Your task to perform on an android device: When is my next appointment? Image 0: 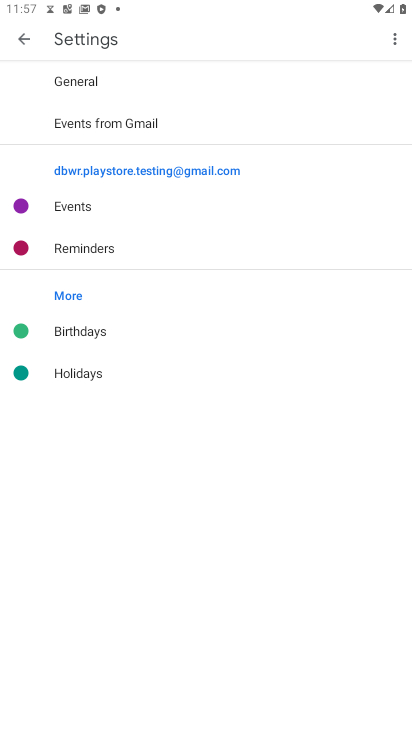
Step 0: press back button
Your task to perform on an android device: When is my next appointment? Image 1: 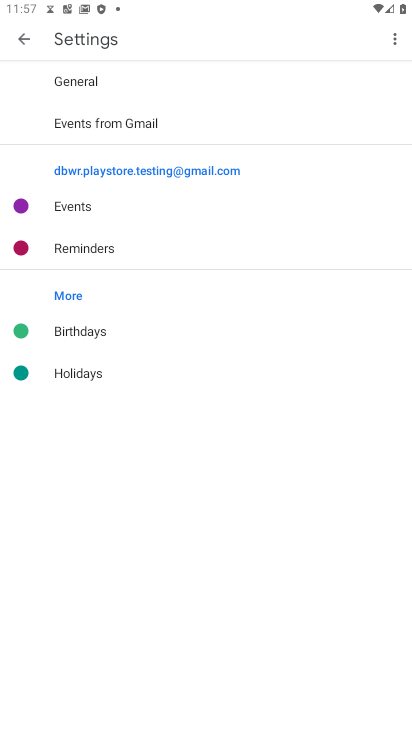
Step 1: press back button
Your task to perform on an android device: When is my next appointment? Image 2: 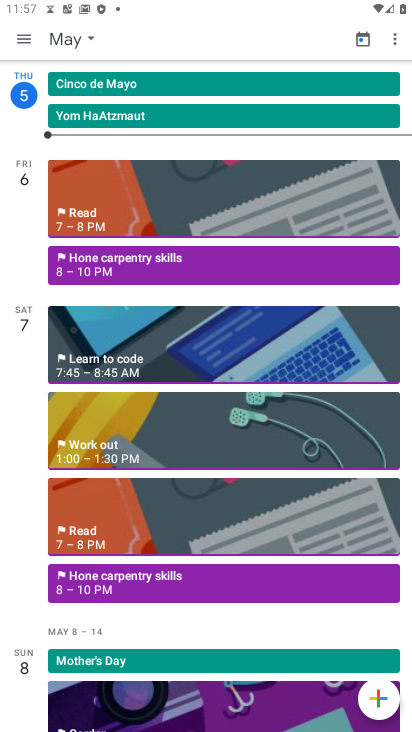
Step 2: press back button
Your task to perform on an android device: When is my next appointment? Image 3: 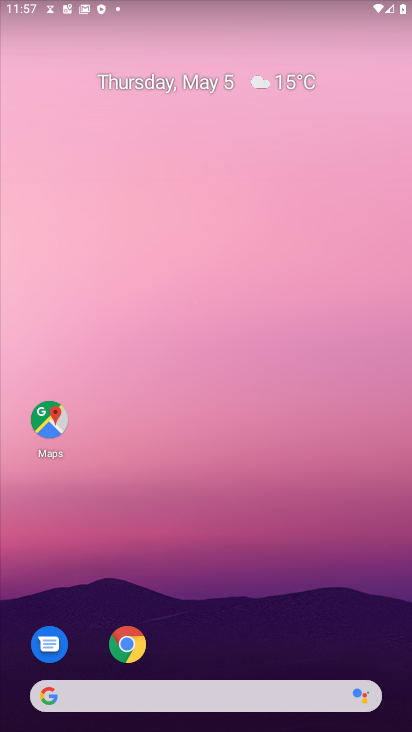
Step 3: drag from (265, 500) to (226, 20)
Your task to perform on an android device: When is my next appointment? Image 4: 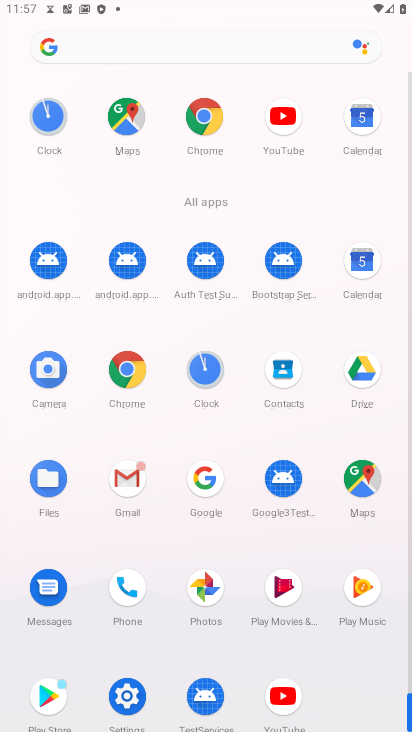
Step 4: drag from (11, 608) to (12, 295)
Your task to perform on an android device: When is my next appointment? Image 5: 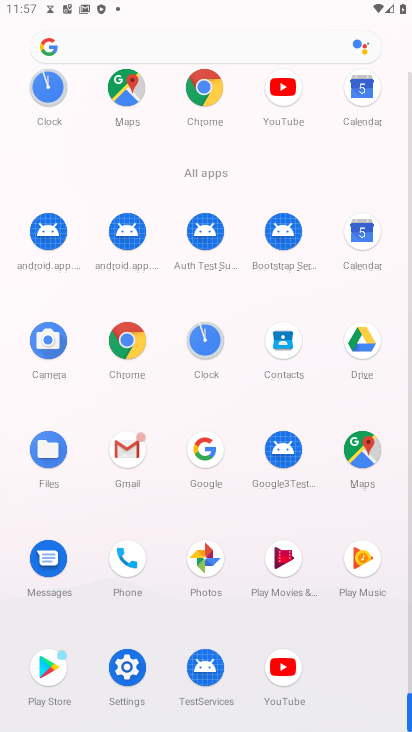
Step 5: click (362, 233)
Your task to perform on an android device: When is my next appointment? Image 6: 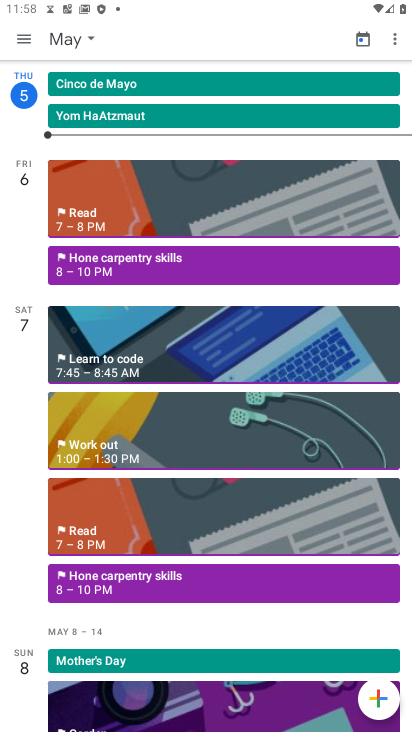
Step 6: click (362, 34)
Your task to perform on an android device: When is my next appointment? Image 7: 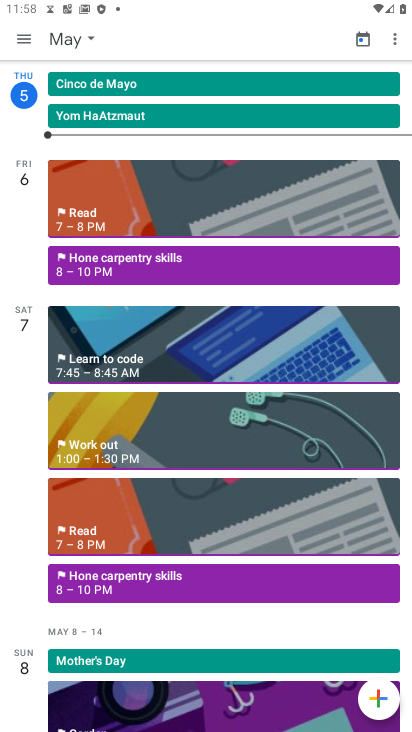
Step 7: click (72, 35)
Your task to perform on an android device: When is my next appointment? Image 8: 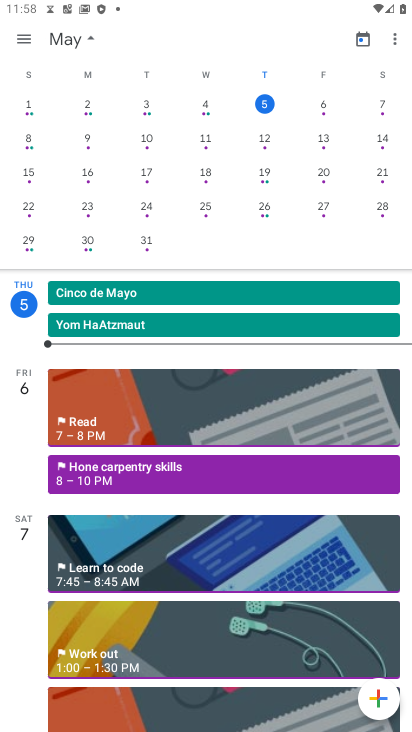
Step 8: drag from (225, 628) to (289, 309)
Your task to perform on an android device: When is my next appointment? Image 9: 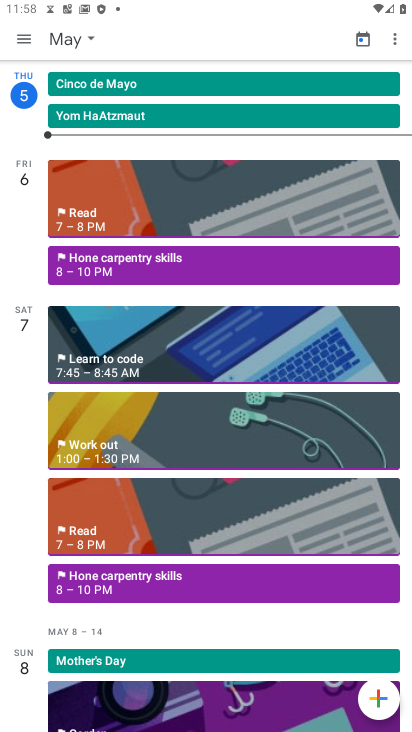
Step 9: drag from (209, 617) to (247, 239)
Your task to perform on an android device: When is my next appointment? Image 10: 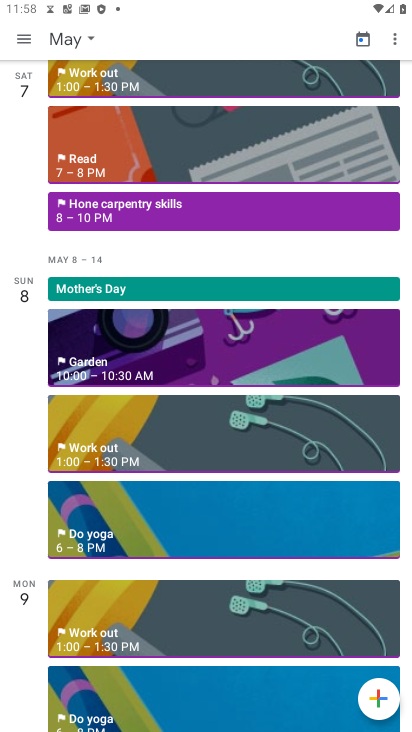
Step 10: click (3, 33)
Your task to perform on an android device: When is my next appointment? Image 11: 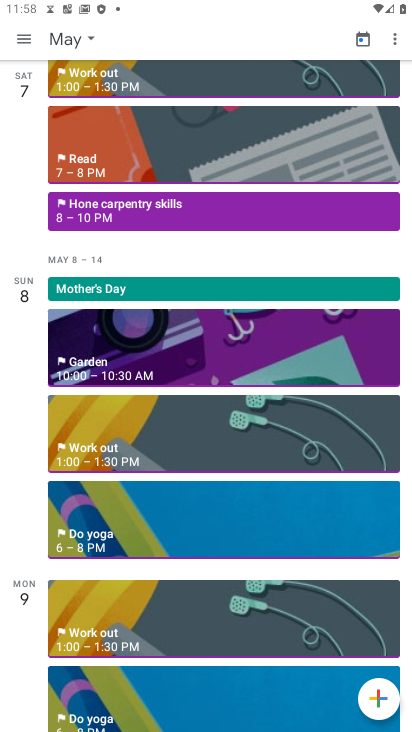
Step 11: click (23, 37)
Your task to perform on an android device: When is my next appointment? Image 12: 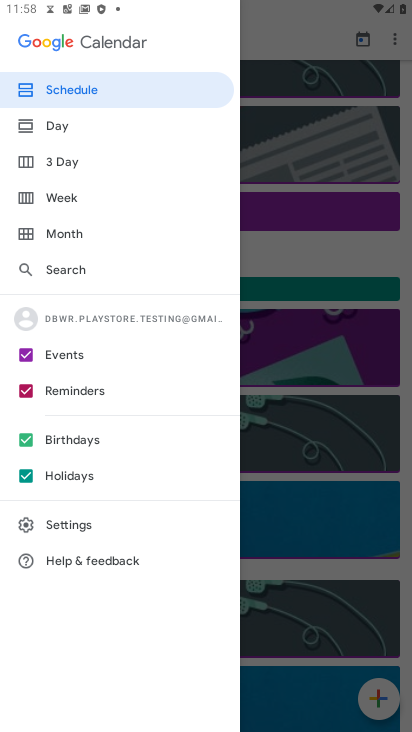
Step 12: click (27, 434)
Your task to perform on an android device: When is my next appointment? Image 13: 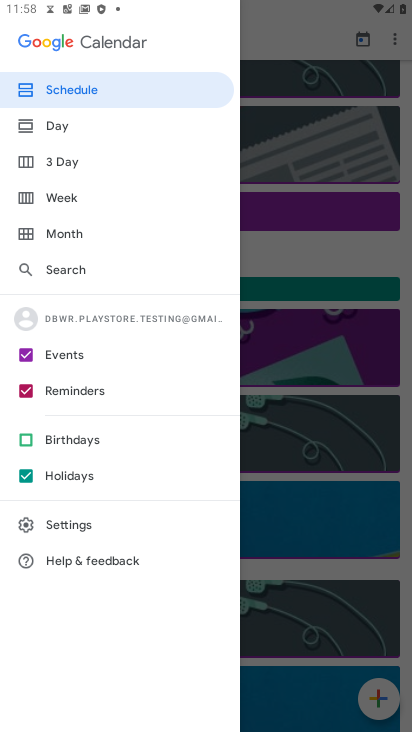
Step 13: click (22, 475)
Your task to perform on an android device: When is my next appointment? Image 14: 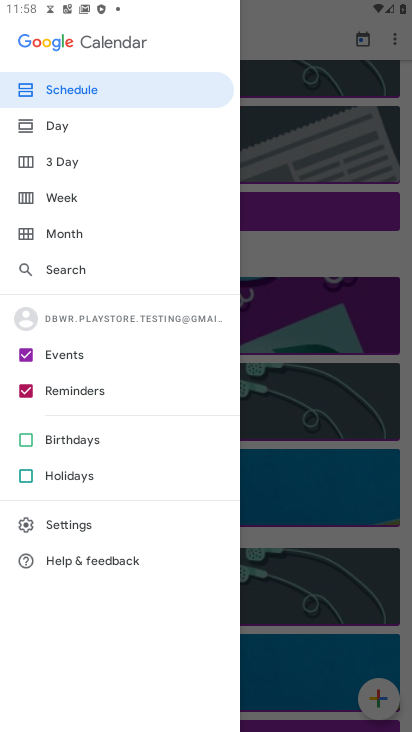
Step 14: click (97, 82)
Your task to perform on an android device: When is my next appointment? Image 15: 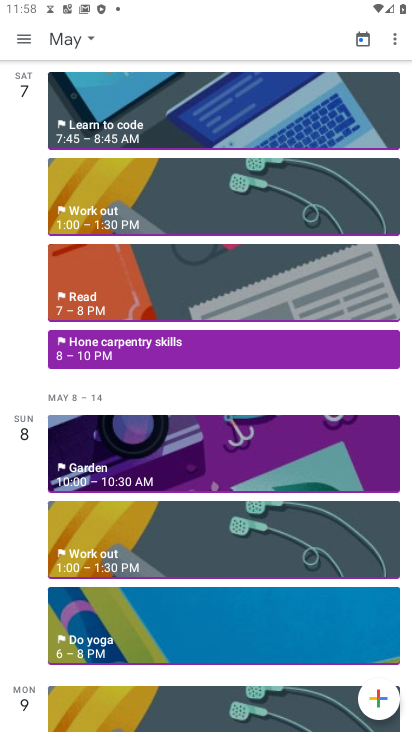
Step 15: task complete